Your task to perform on an android device: What's the weather? Image 0: 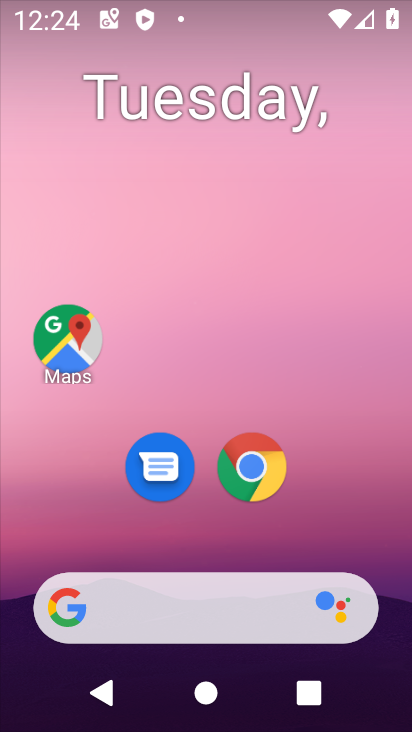
Step 0: click (130, 598)
Your task to perform on an android device: What's the weather? Image 1: 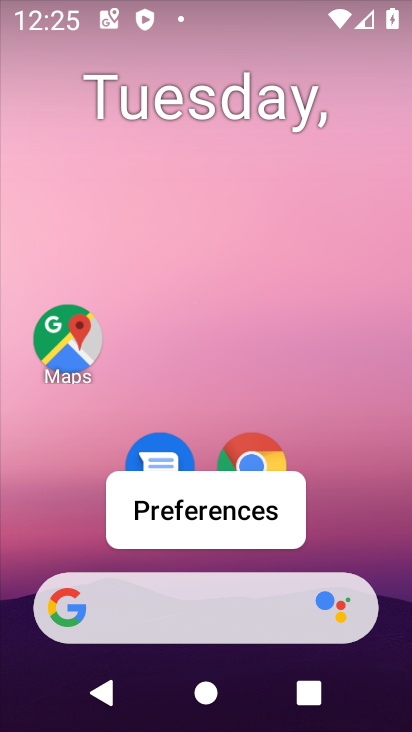
Step 1: click (229, 593)
Your task to perform on an android device: What's the weather? Image 2: 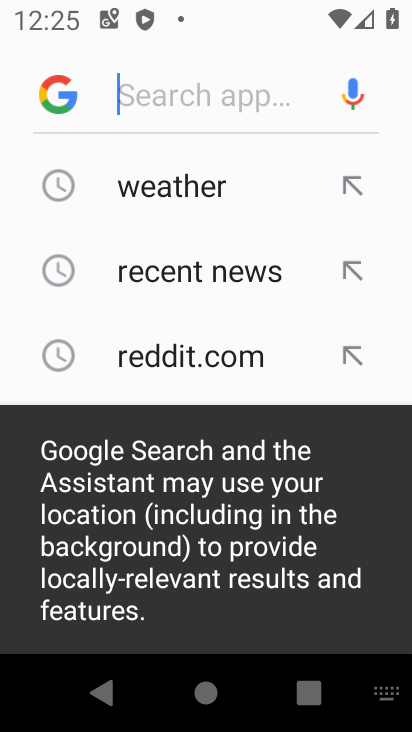
Step 2: click (193, 191)
Your task to perform on an android device: What's the weather? Image 3: 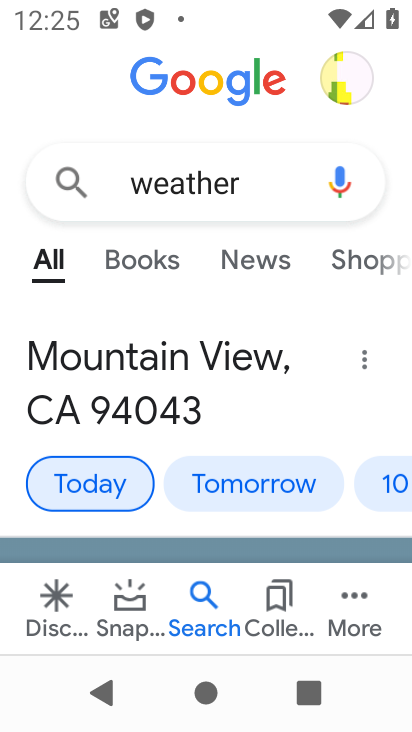
Step 3: task complete